Your task to perform on an android device: install app "Spotify: Music and Podcasts" Image 0: 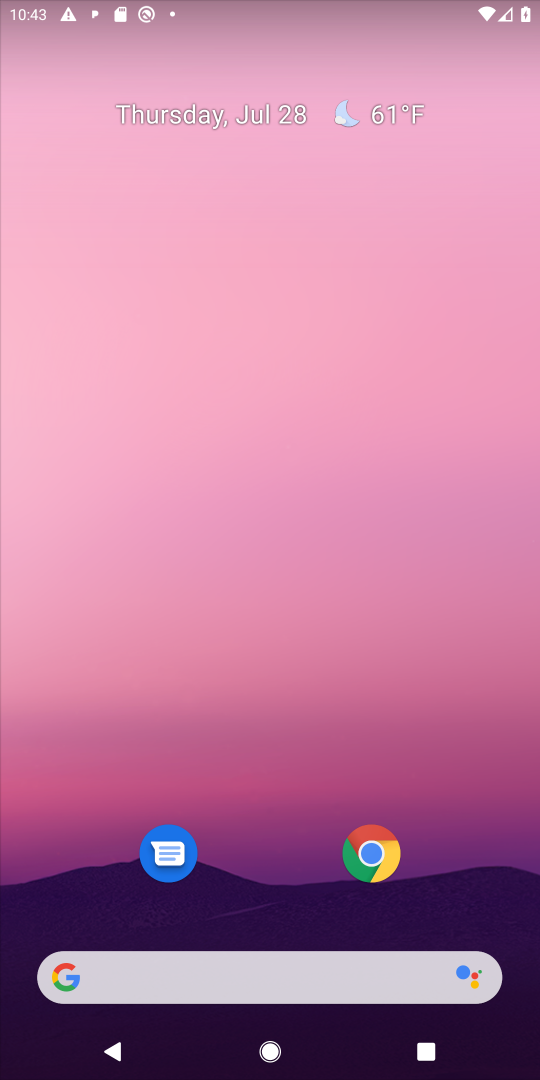
Step 0: drag from (192, 761) to (352, 35)
Your task to perform on an android device: install app "Spotify: Music and Podcasts" Image 1: 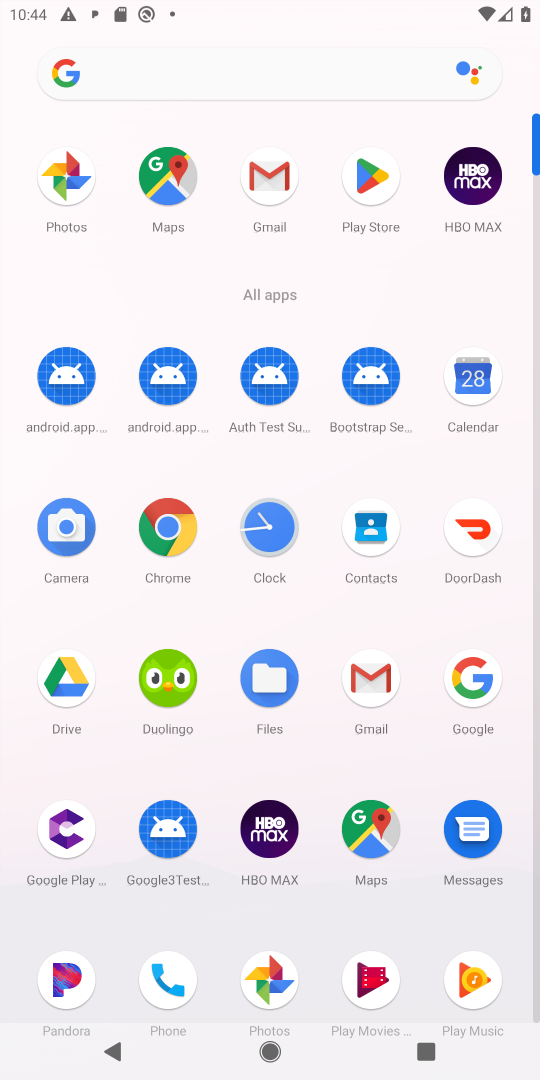
Step 1: click (368, 184)
Your task to perform on an android device: install app "Spotify: Music and Podcasts" Image 2: 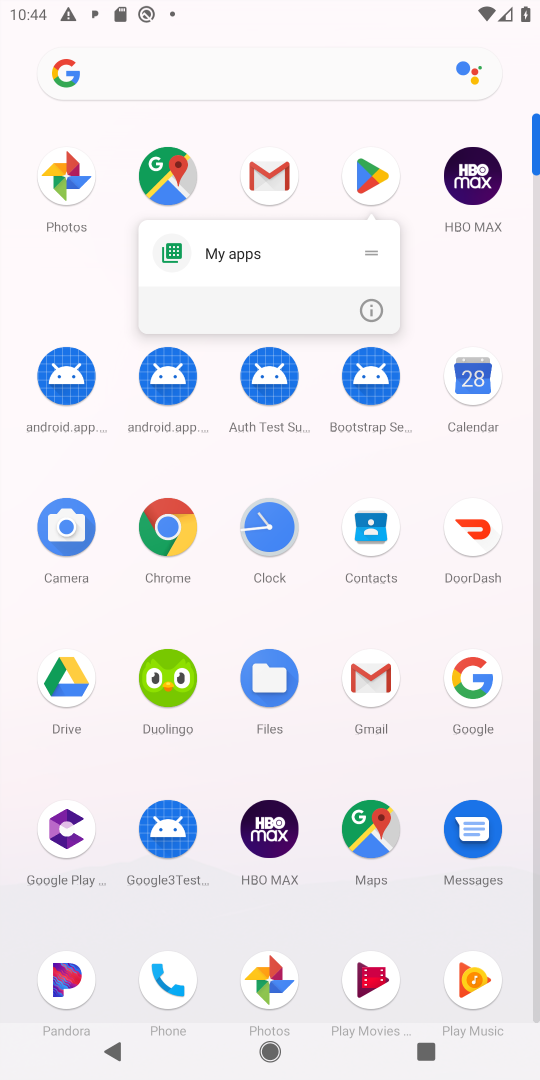
Step 2: click (368, 184)
Your task to perform on an android device: install app "Spotify: Music and Podcasts" Image 3: 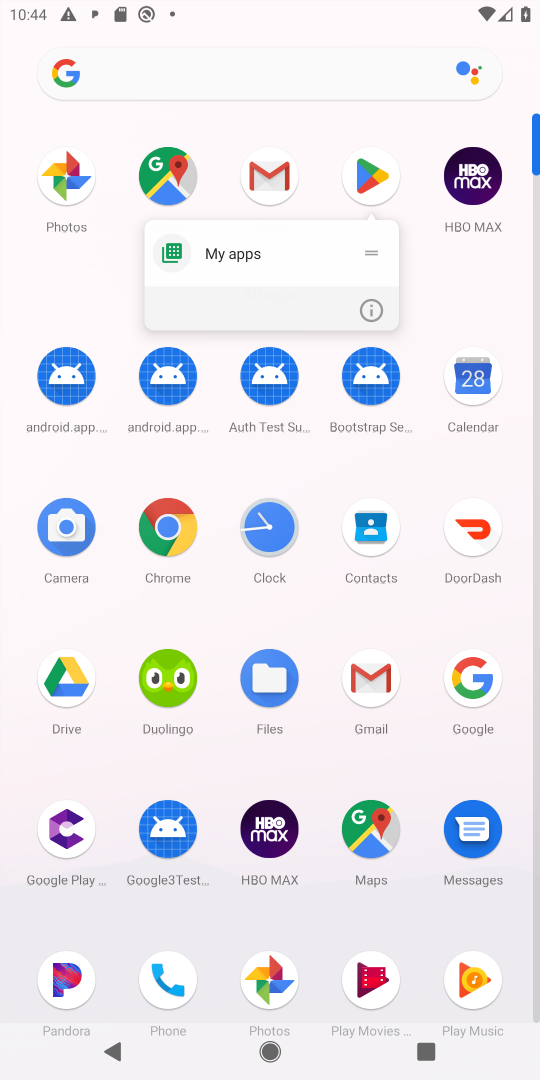
Step 3: click (368, 184)
Your task to perform on an android device: install app "Spotify: Music and Podcasts" Image 4: 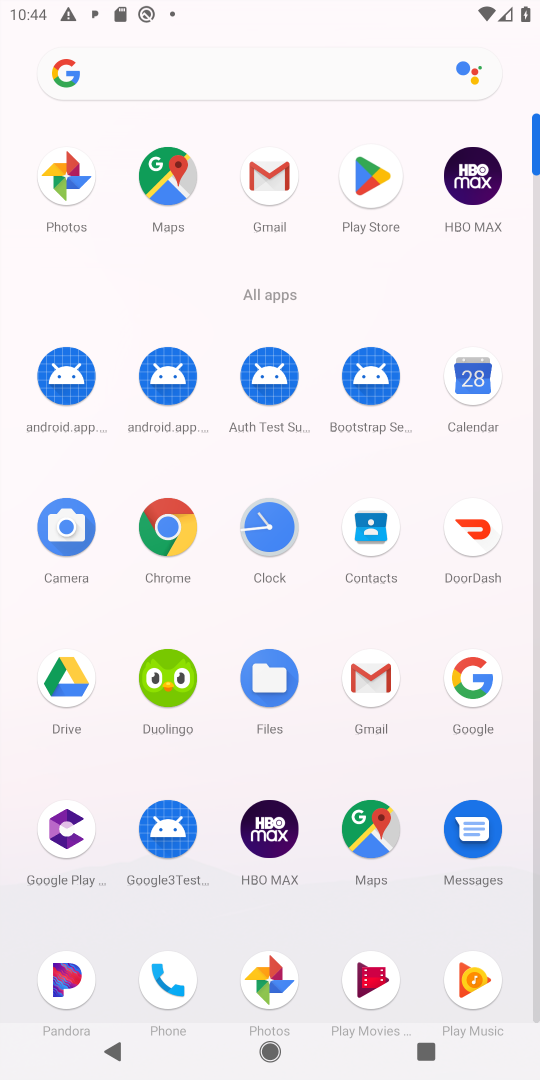
Step 4: click (368, 184)
Your task to perform on an android device: install app "Spotify: Music and Podcasts" Image 5: 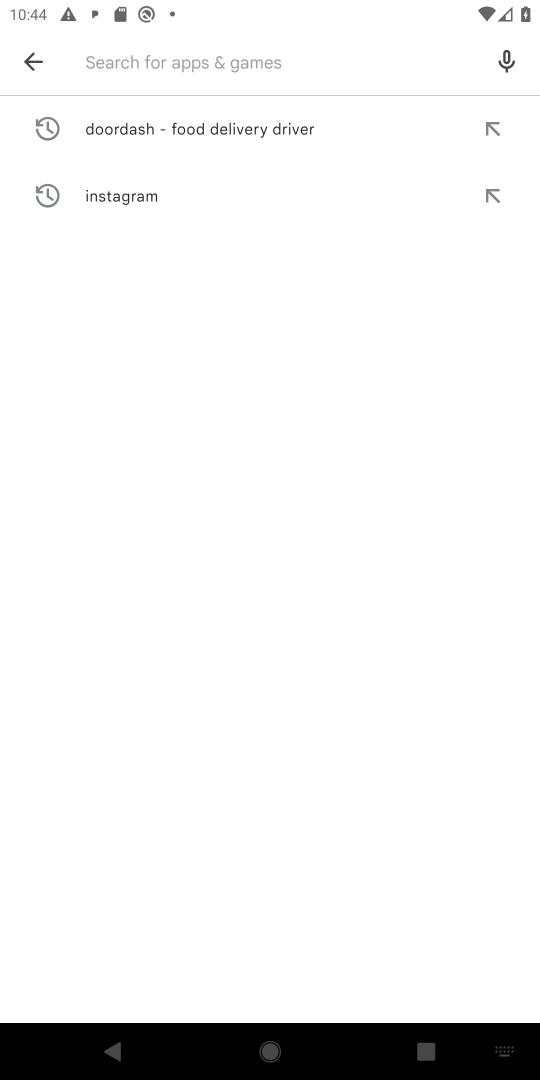
Step 5: click (280, 60)
Your task to perform on an android device: install app "Spotify: Music and Podcasts" Image 6: 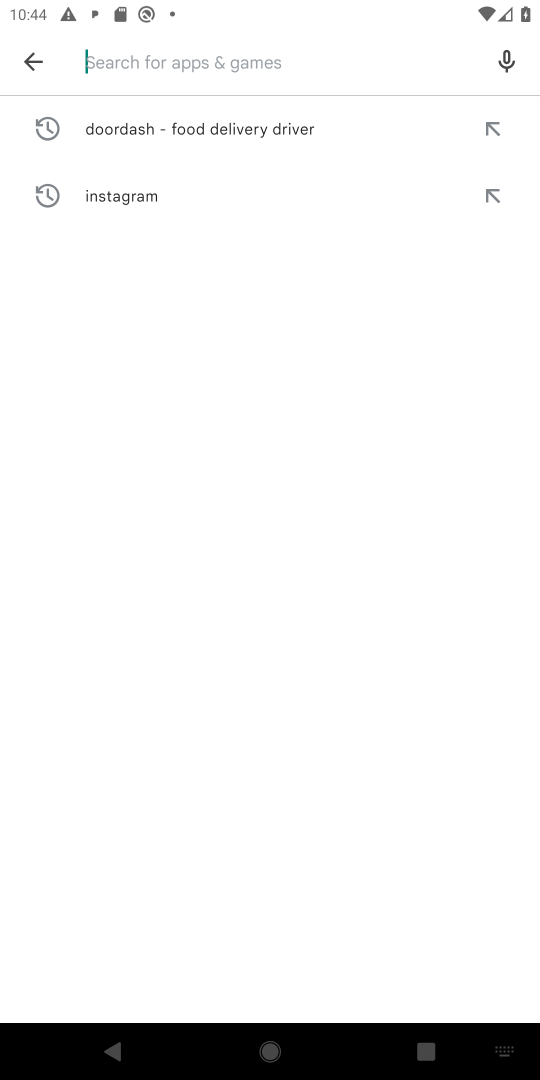
Step 6: type "Spotify: Music and Podcasts"
Your task to perform on an android device: install app "Spotify: Music and Podcasts" Image 7: 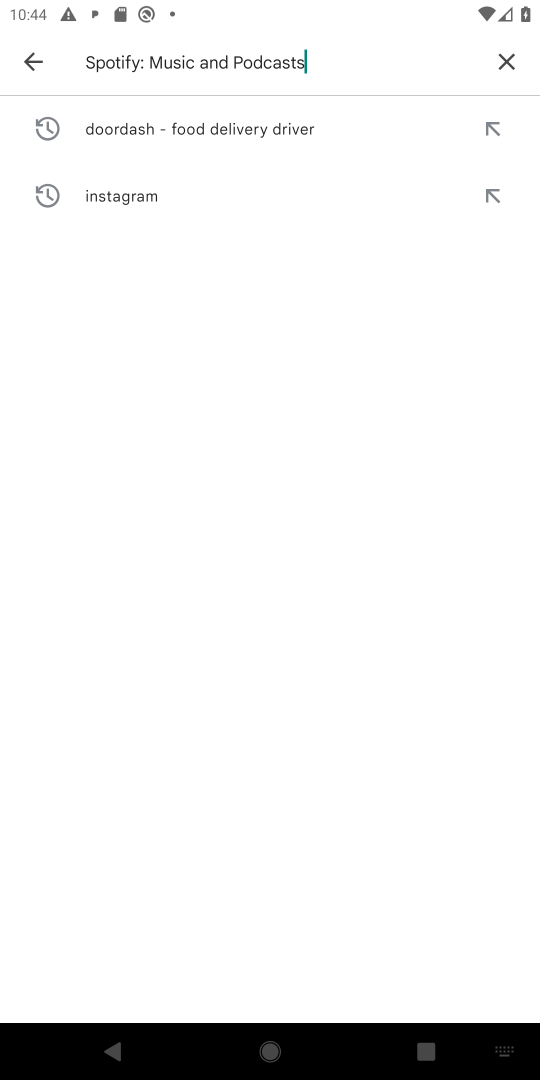
Step 7: type ""
Your task to perform on an android device: install app "Spotify: Music and Podcasts" Image 8: 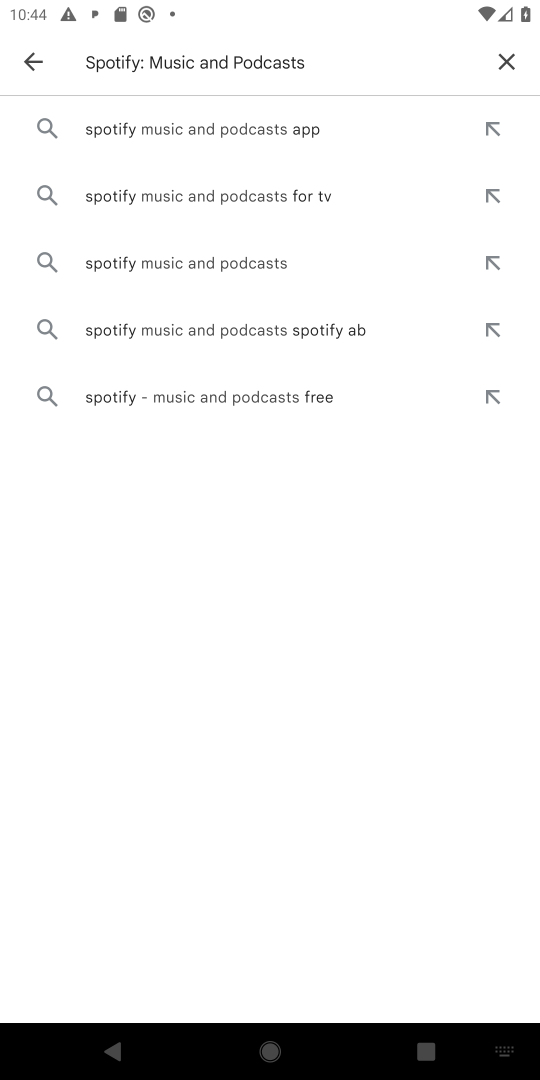
Step 8: click (354, 140)
Your task to perform on an android device: install app "Spotify: Music and Podcasts" Image 9: 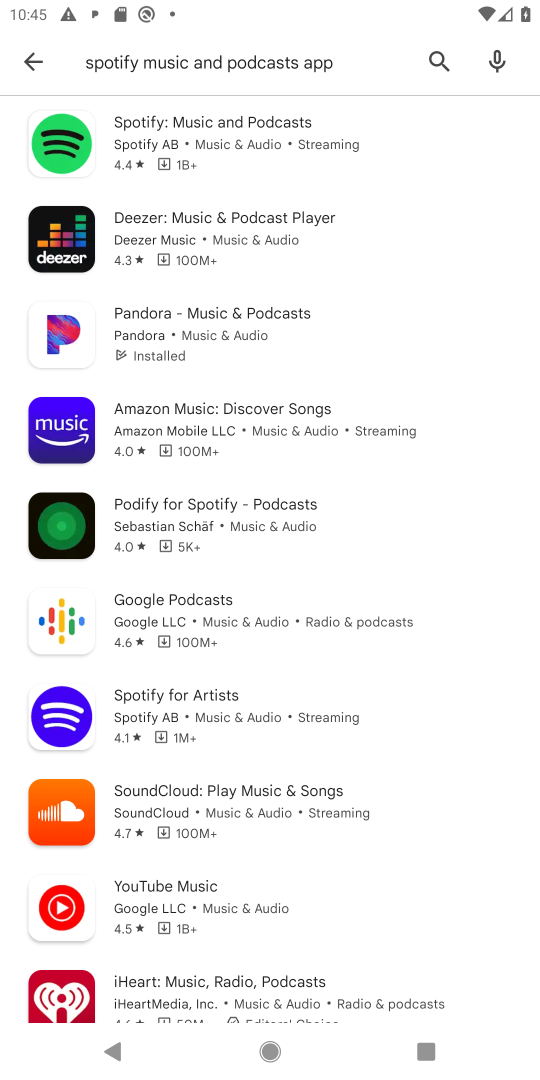
Step 9: click (331, 142)
Your task to perform on an android device: install app "Spotify: Music and Podcasts" Image 10: 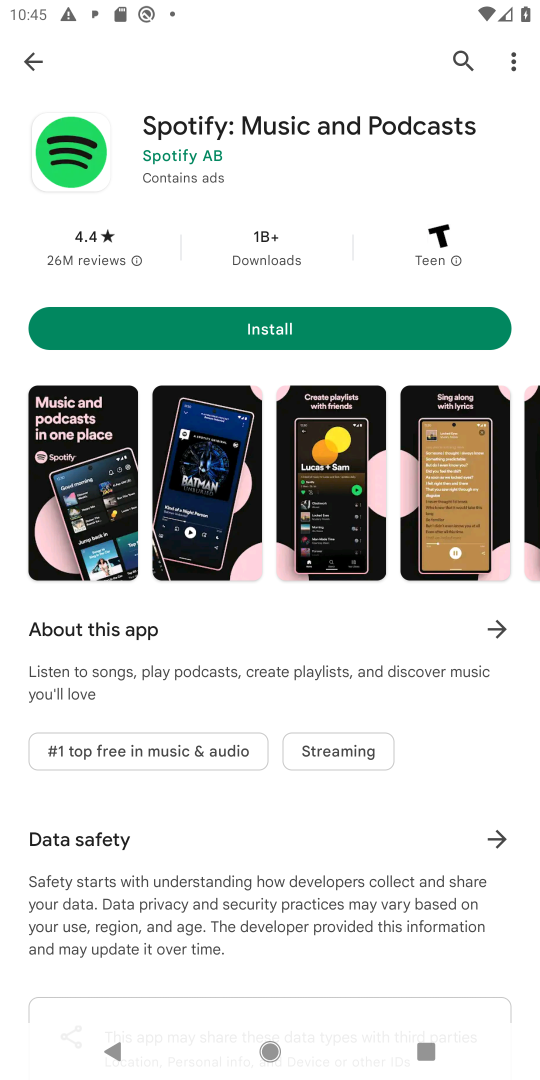
Step 10: click (353, 325)
Your task to perform on an android device: install app "Spotify: Music and Podcasts" Image 11: 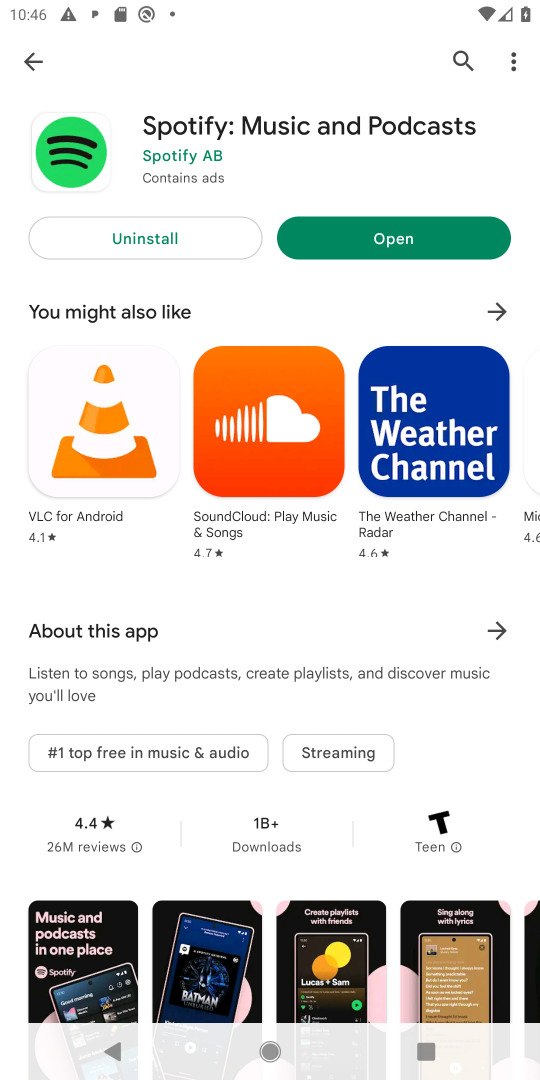
Step 11: task complete